Your task to perform on an android device: Open the calendar and show me this week's events? Image 0: 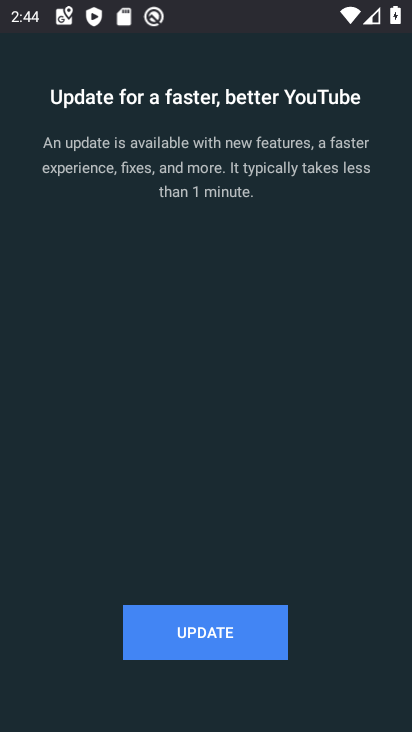
Step 0: press home button
Your task to perform on an android device: Open the calendar and show me this week's events? Image 1: 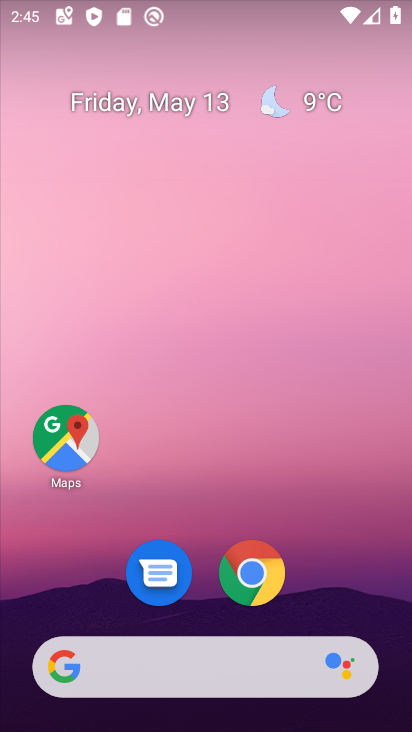
Step 1: drag from (307, 574) to (218, 101)
Your task to perform on an android device: Open the calendar and show me this week's events? Image 2: 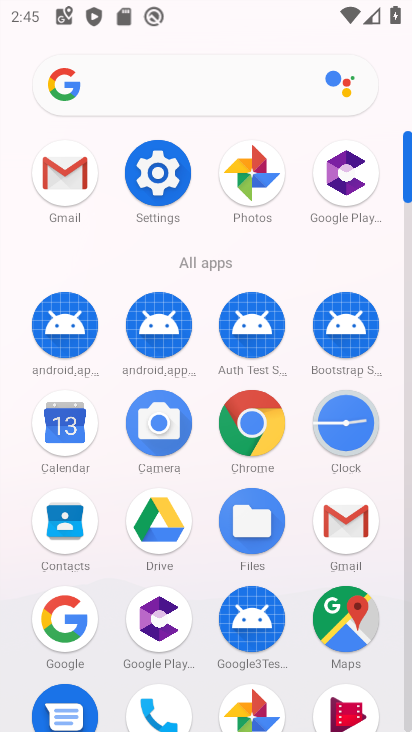
Step 2: click (67, 425)
Your task to perform on an android device: Open the calendar and show me this week's events? Image 3: 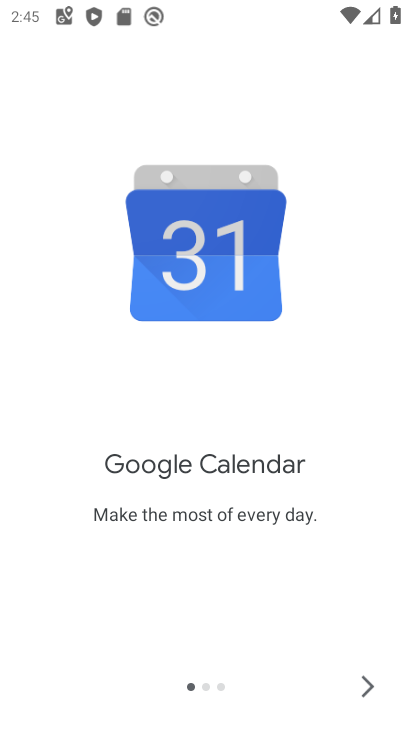
Step 3: click (367, 681)
Your task to perform on an android device: Open the calendar and show me this week's events? Image 4: 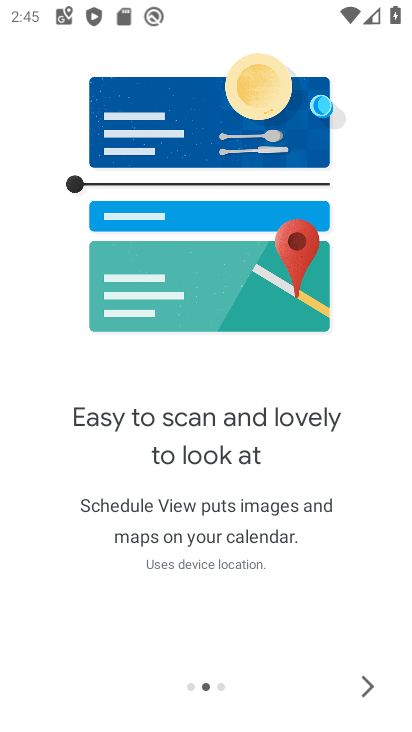
Step 4: click (367, 681)
Your task to perform on an android device: Open the calendar and show me this week's events? Image 5: 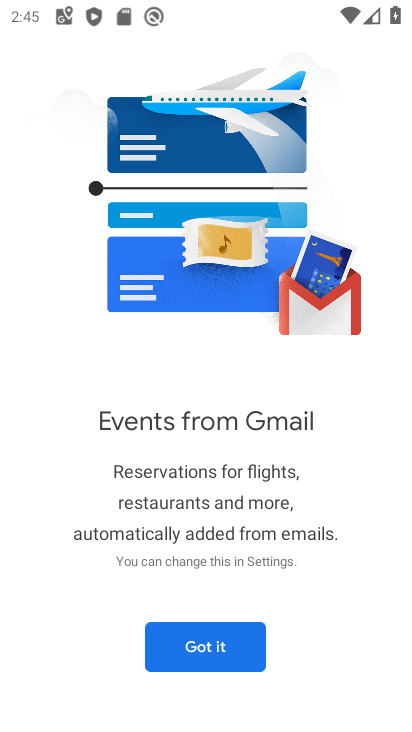
Step 5: click (208, 644)
Your task to perform on an android device: Open the calendar and show me this week's events? Image 6: 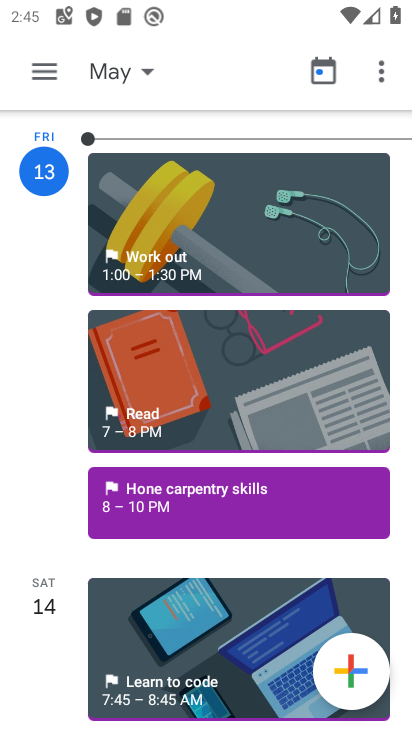
Step 6: task complete